Your task to perform on an android device: stop showing notifications on the lock screen Image 0: 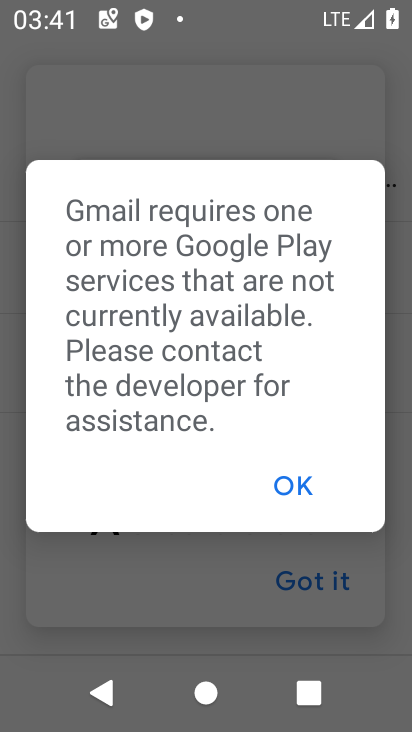
Step 0: press home button
Your task to perform on an android device: stop showing notifications on the lock screen Image 1: 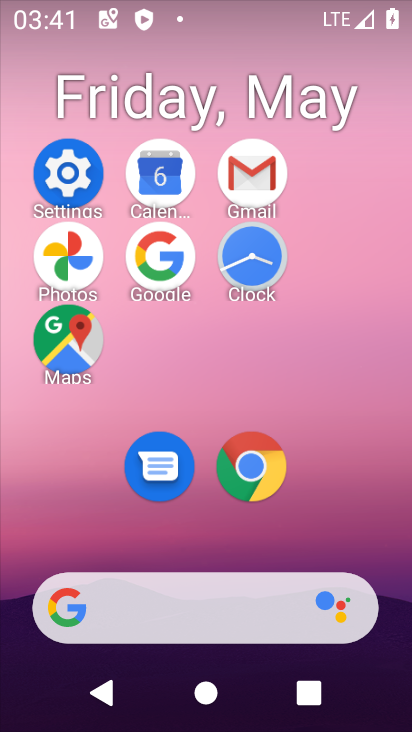
Step 1: click (87, 190)
Your task to perform on an android device: stop showing notifications on the lock screen Image 2: 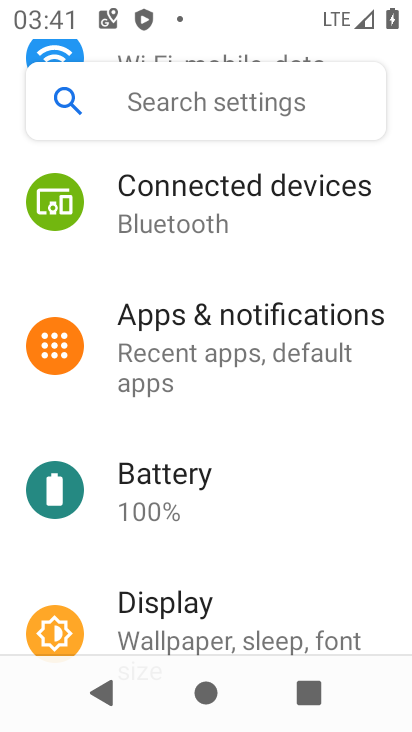
Step 2: click (213, 351)
Your task to perform on an android device: stop showing notifications on the lock screen Image 3: 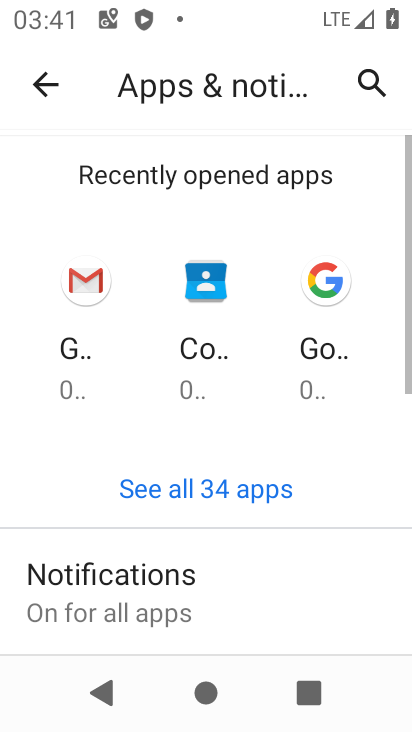
Step 3: drag from (253, 574) to (226, 206)
Your task to perform on an android device: stop showing notifications on the lock screen Image 4: 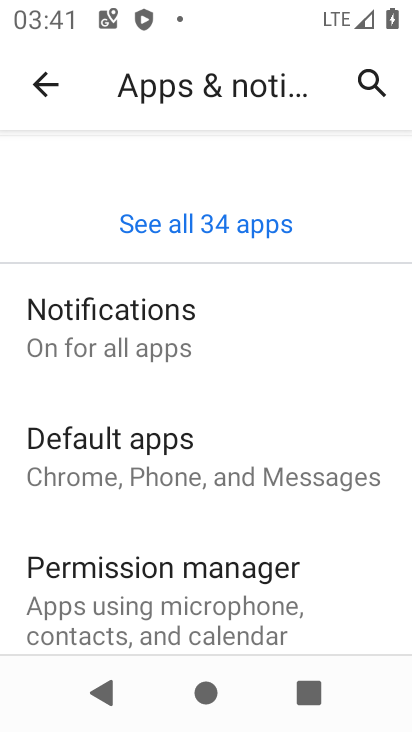
Step 4: click (265, 320)
Your task to perform on an android device: stop showing notifications on the lock screen Image 5: 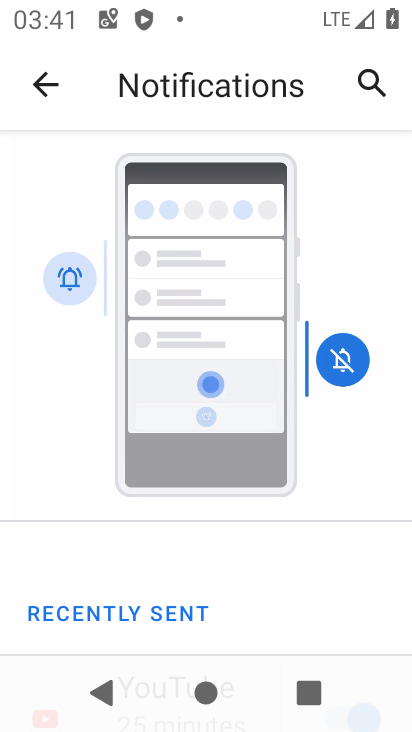
Step 5: drag from (217, 555) to (149, 103)
Your task to perform on an android device: stop showing notifications on the lock screen Image 6: 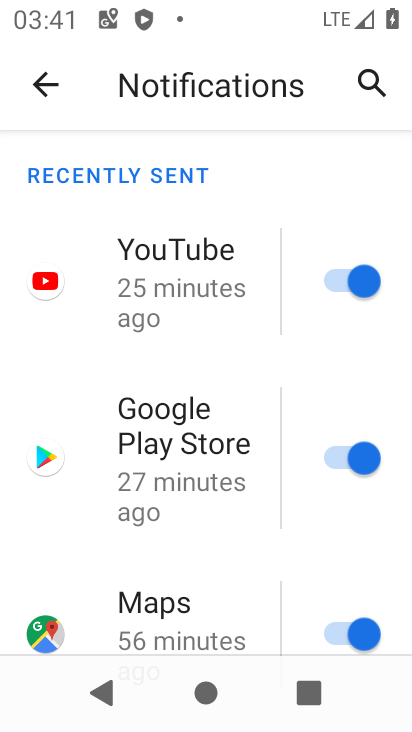
Step 6: drag from (181, 544) to (193, 194)
Your task to perform on an android device: stop showing notifications on the lock screen Image 7: 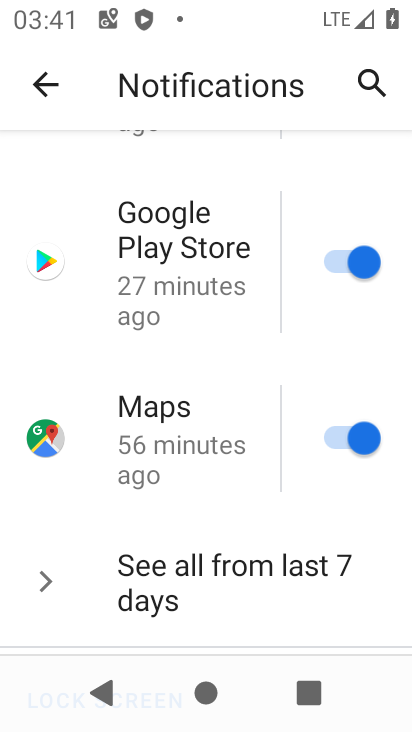
Step 7: drag from (209, 489) to (223, 169)
Your task to perform on an android device: stop showing notifications on the lock screen Image 8: 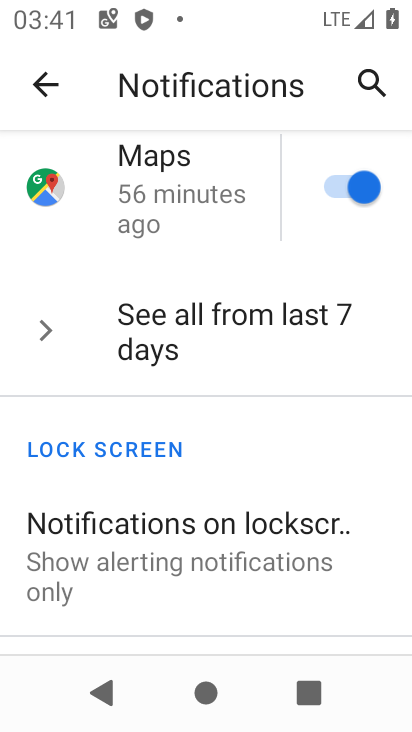
Step 8: click (256, 540)
Your task to perform on an android device: stop showing notifications on the lock screen Image 9: 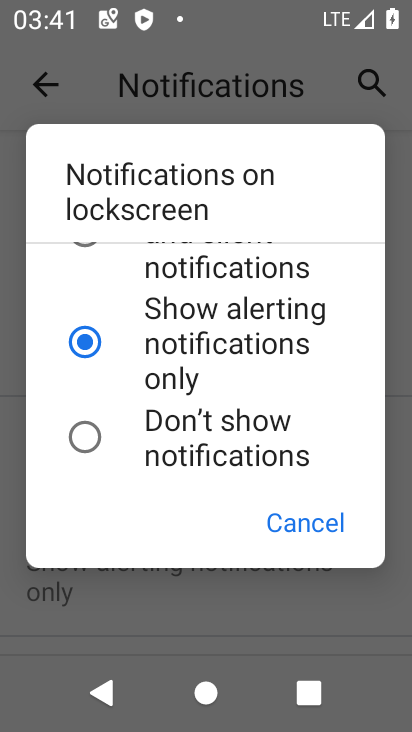
Step 9: click (236, 424)
Your task to perform on an android device: stop showing notifications on the lock screen Image 10: 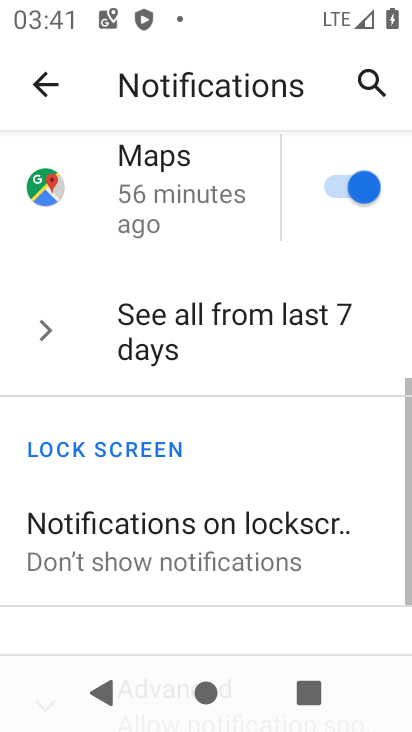
Step 10: task complete